Your task to perform on an android device: Clear all items from cart on costco. Add duracell triple a to the cart on costco Image 0: 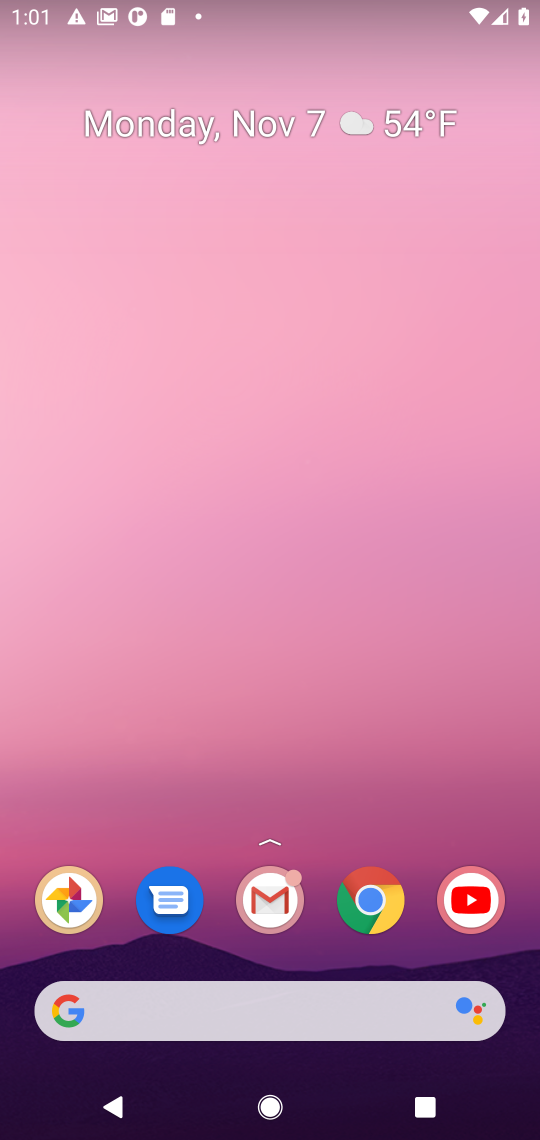
Step 0: click (315, 996)
Your task to perform on an android device: Clear all items from cart on costco. Add duracell triple a to the cart on costco Image 1: 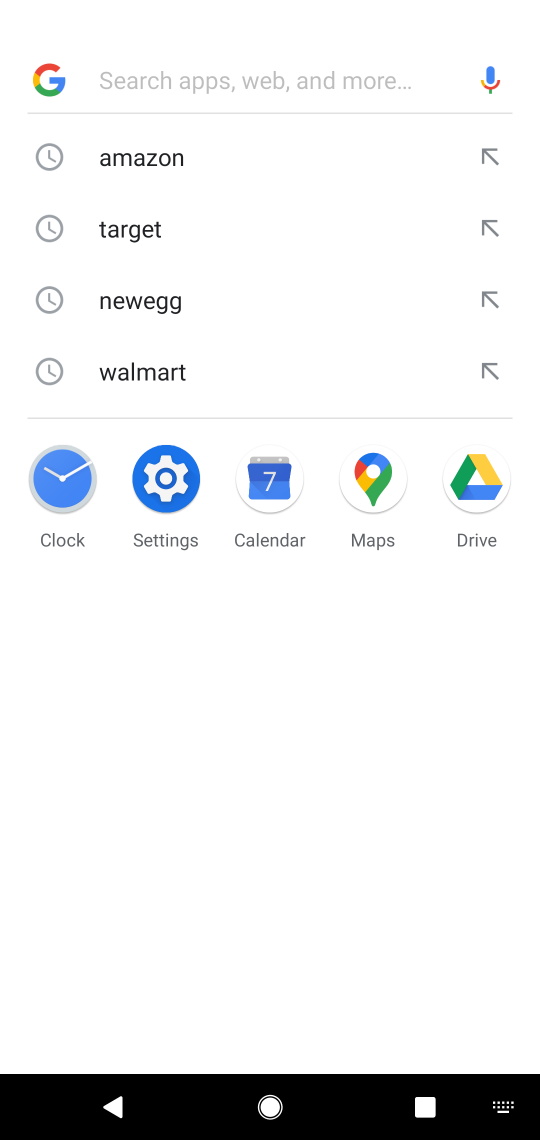
Step 1: type "costco"
Your task to perform on an android device: Clear all items from cart on costco. Add duracell triple a to the cart on costco Image 2: 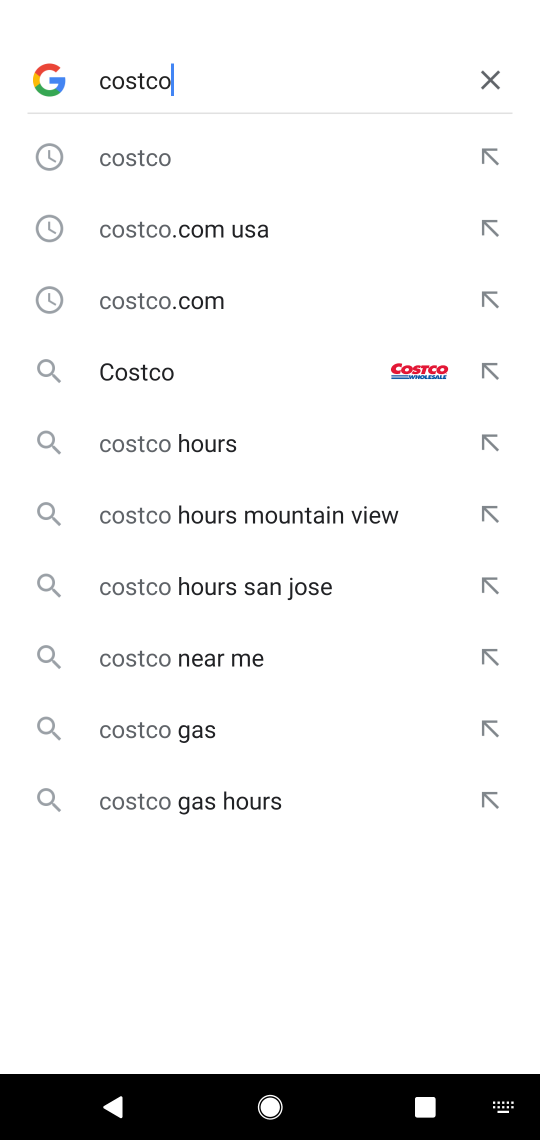
Step 2: click (268, 371)
Your task to perform on an android device: Clear all items from cart on costco. Add duracell triple a to the cart on costco Image 3: 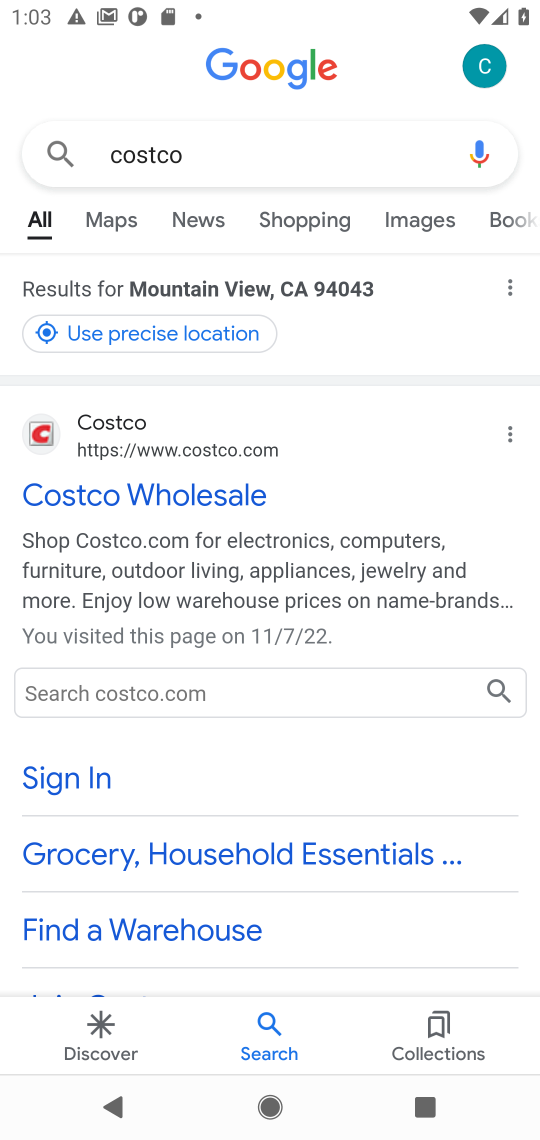
Step 3: click (18, 512)
Your task to perform on an android device: Clear all items from cart on costco. Add duracell triple a to the cart on costco Image 4: 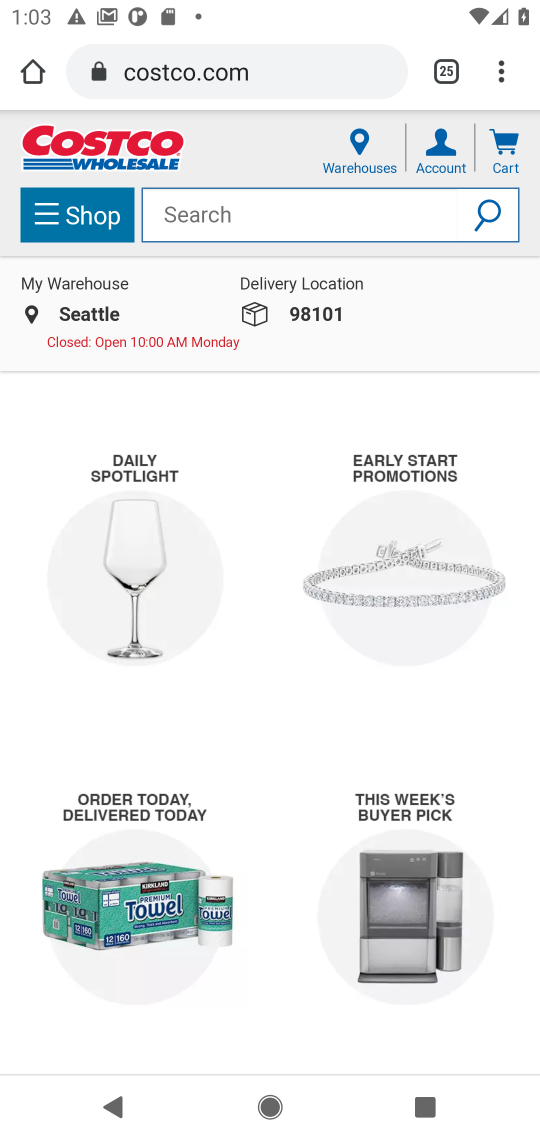
Step 4: task complete